Your task to perform on an android device: Open sound settings Image 0: 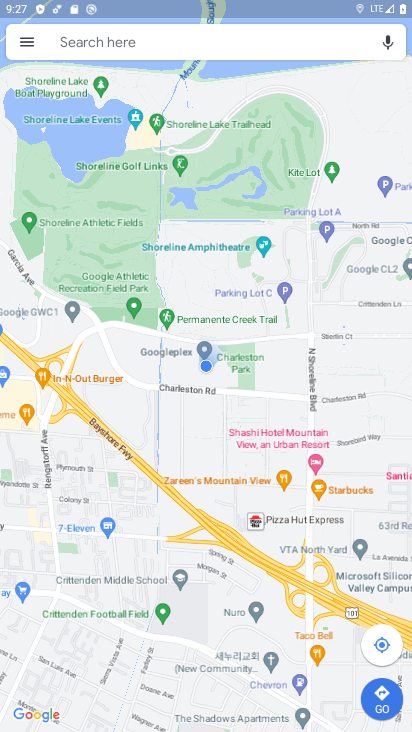
Step 0: press home button
Your task to perform on an android device: Open sound settings Image 1: 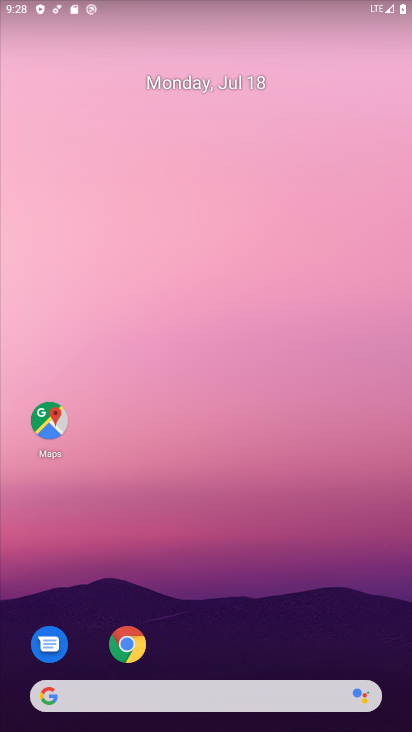
Step 1: drag from (279, 646) to (309, 125)
Your task to perform on an android device: Open sound settings Image 2: 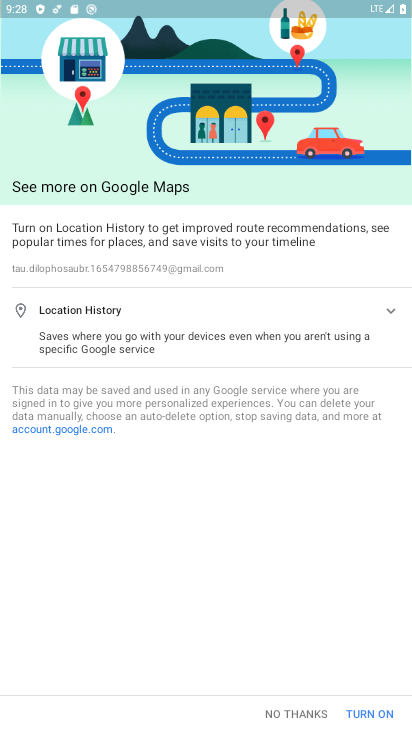
Step 2: press back button
Your task to perform on an android device: Open sound settings Image 3: 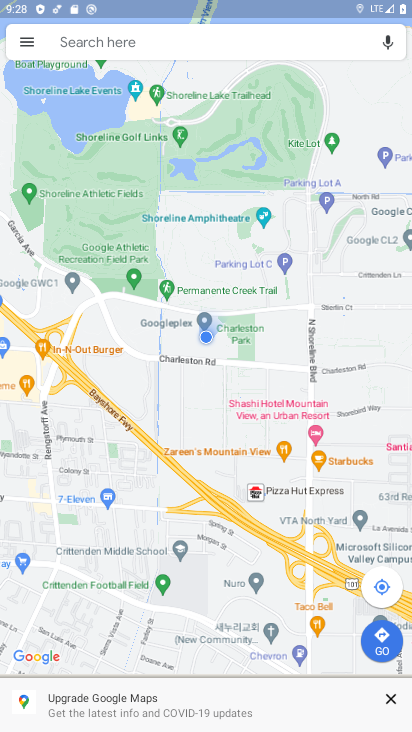
Step 3: press home button
Your task to perform on an android device: Open sound settings Image 4: 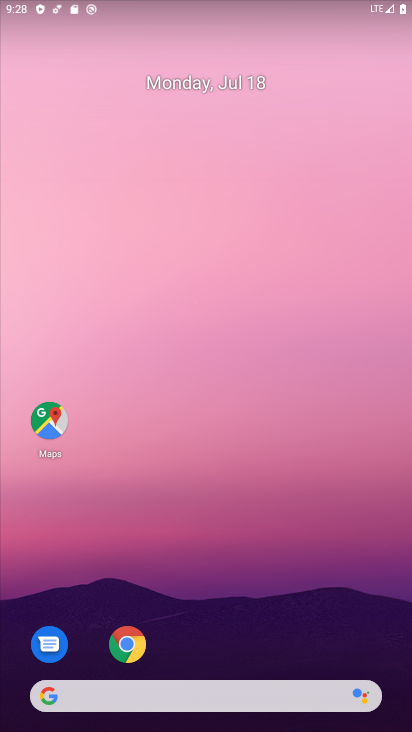
Step 4: drag from (281, 632) to (317, 188)
Your task to perform on an android device: Open sound settings Image 5: 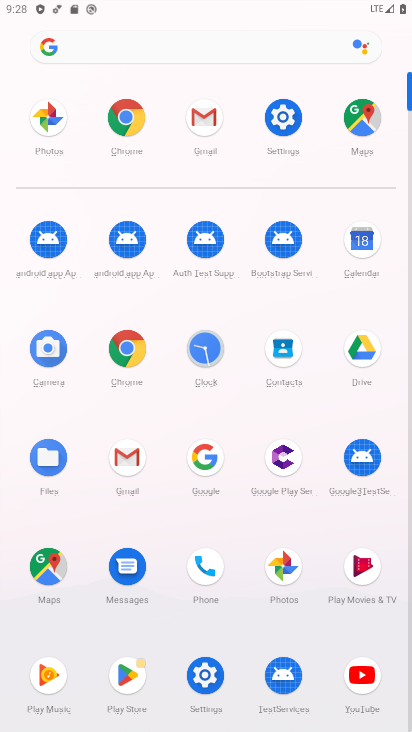
Step 5: click (285, 127)
Your task to perform on an android device: Open sound settings Image 6: 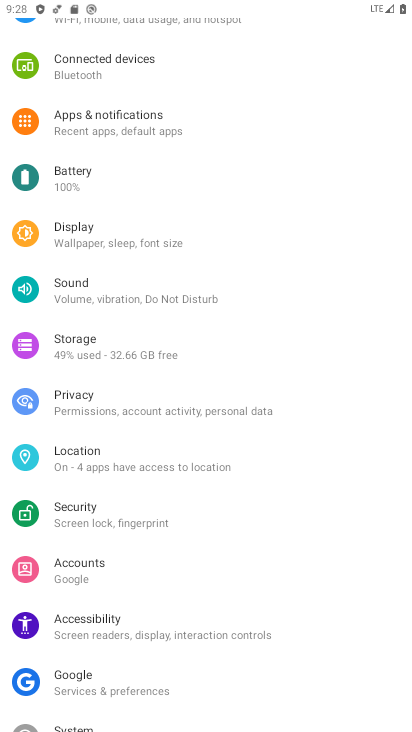
Step 6: drag from (330, 264) to (329, 423)
Your task to perform on an android device: Open sound settings Image 7: 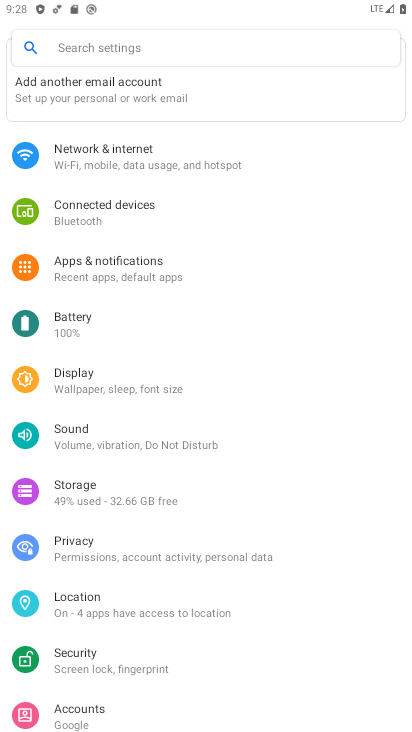
Step 7: drag from (314, 255) to (323, 410)
Your task to perform on an android device: Open sound settings Image 8: 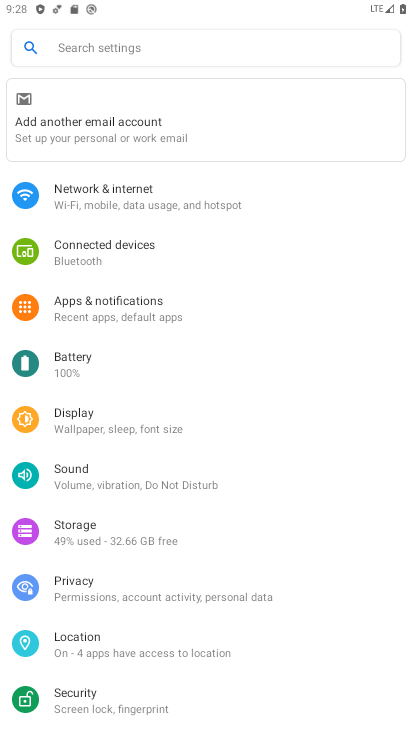
Step 8: drag from (320, 238) to (321, 382)
Your task to perform on an android device: Open sound settings Image 9: 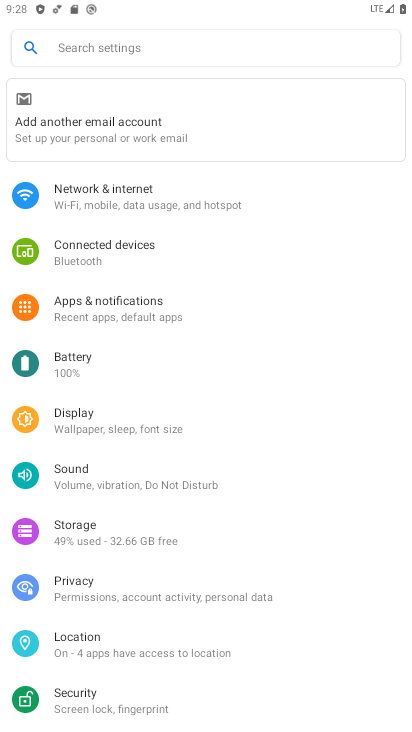
Step 9: drag from (336, 574) to (338, 457)
Your task to perform on an android device: Open sound settings Image 10: 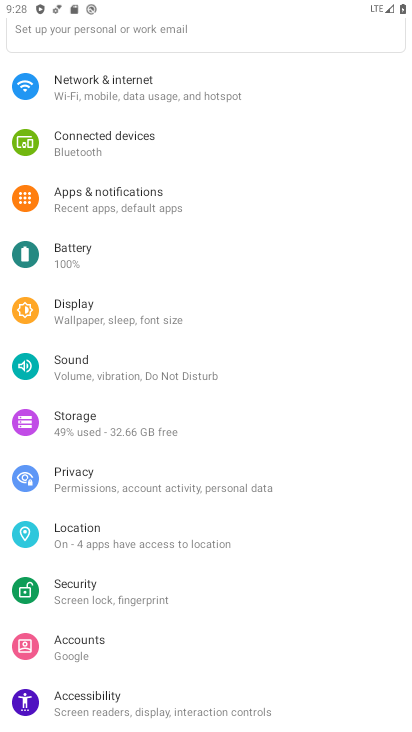
Step 10: click (205, 366)
Your task to perform on an android device: Open sound settings Image 11: 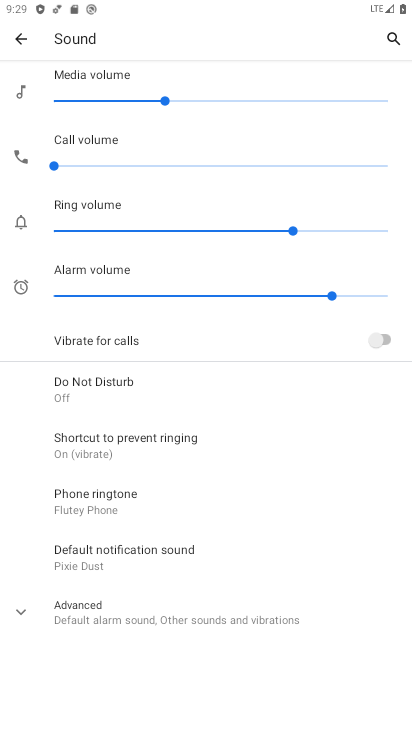
Step 11: drag from (267, 517) to (274, 442)
Your task to perform on an android device: Open sound settings Image 12: 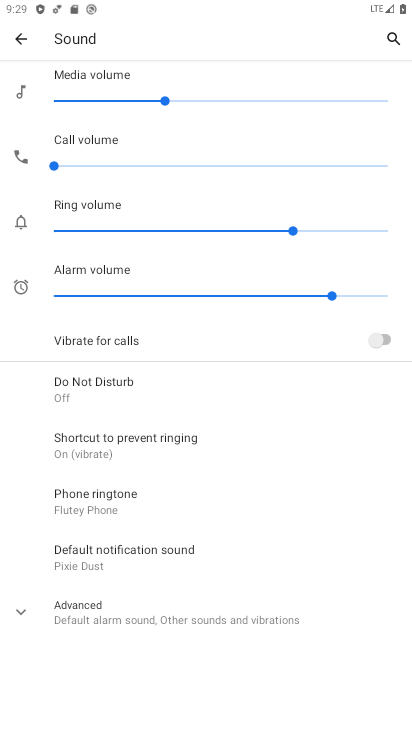
Step 12: click (253, 618)
Your task to perform on an android device: Open sound settings Image 13: 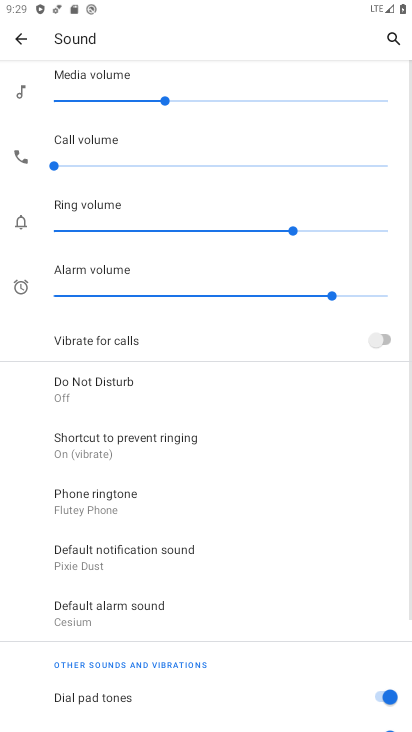
Step 13: task complete